Your task to perform on an android device: Open Chrome and go to settings Image 0: 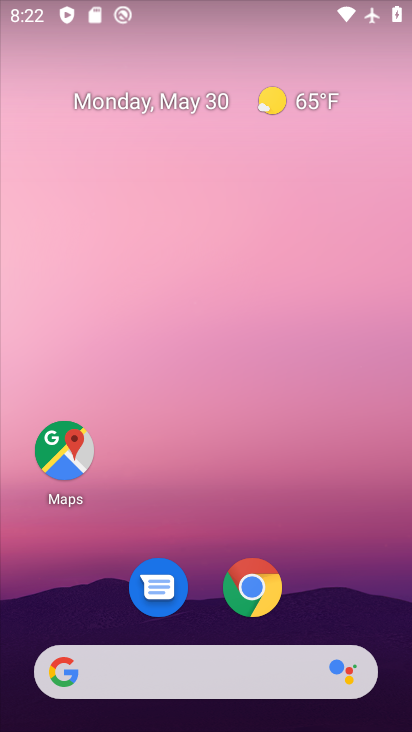
Step 0: press home button
Your task to perform on an android device: Open Chrome and go to settings Image 1: 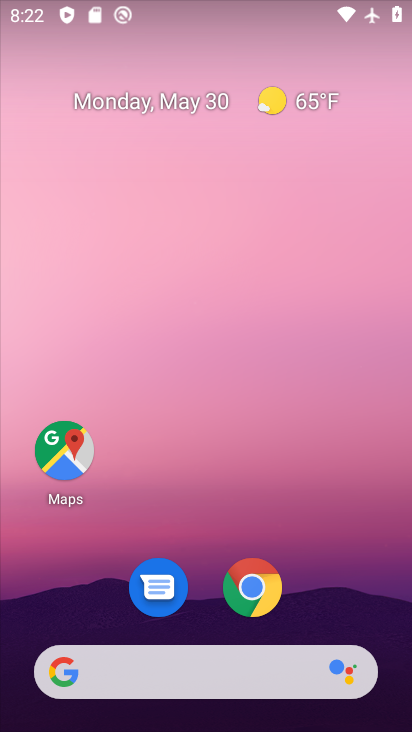
Step 1: click (258, 592)
Your task to perform on an android device: Open Chrome and go to settings Image 2: 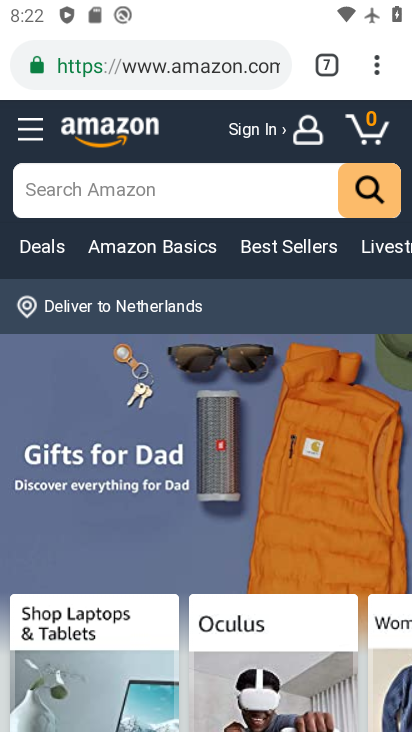
Step 2: task complete